Your task to perform on an android device: Open CNN.com Image 0: 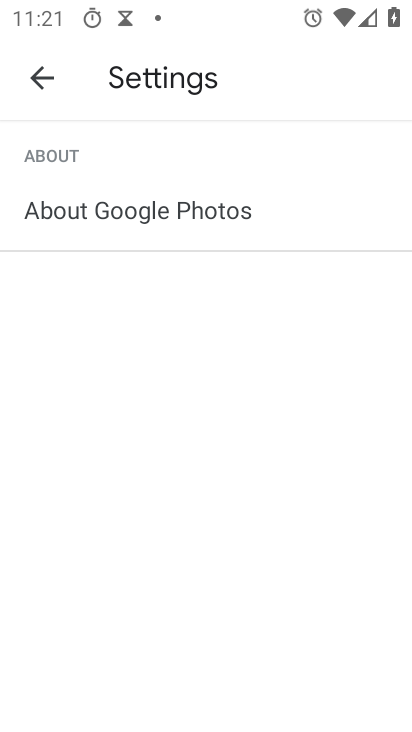
Step 0: click (34, 69)
Your task to perform on an android device: Open CNN.com Image 1: 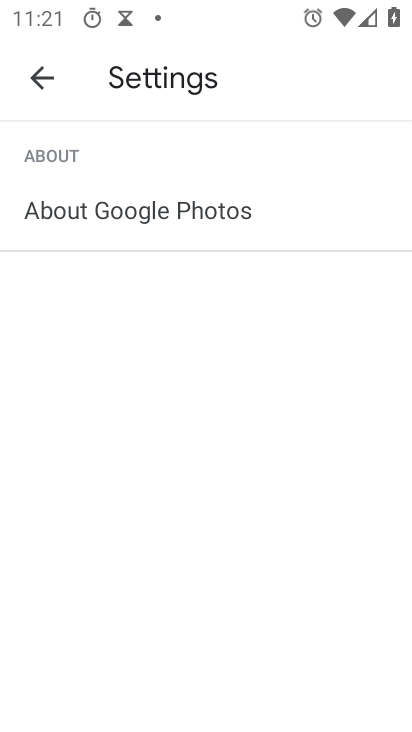
Step 1: click (34, 69)
Your task to perform on an android device: Open CNN.com Image 2: 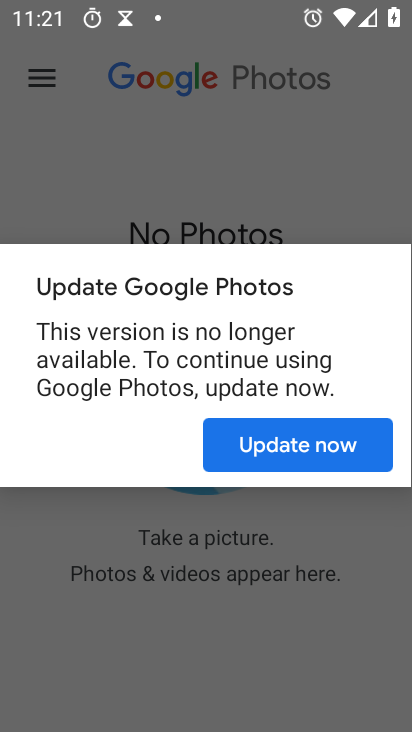
Step 2: press back button
Your task to perform on an android device: Open CNN.com Image 3: 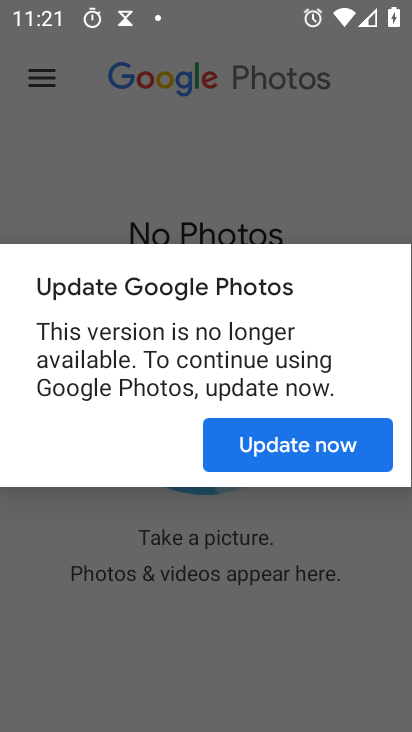
Step 3: press back button
Your task to perform on an android device: Open CNN.com Image 4: 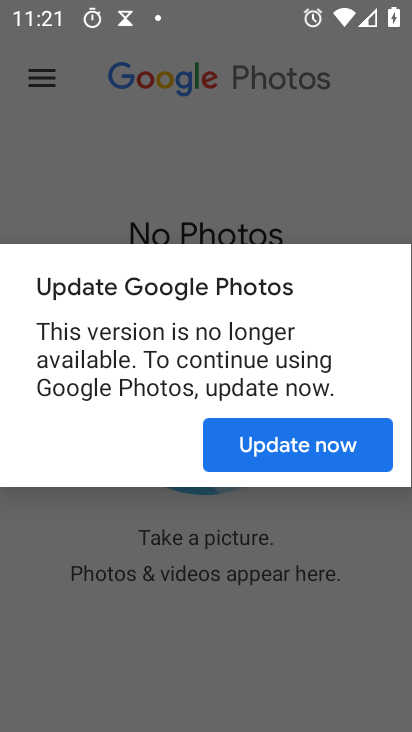
Step 4: press back button
Your task to perform on an android device: Open CNN.com Image 5: 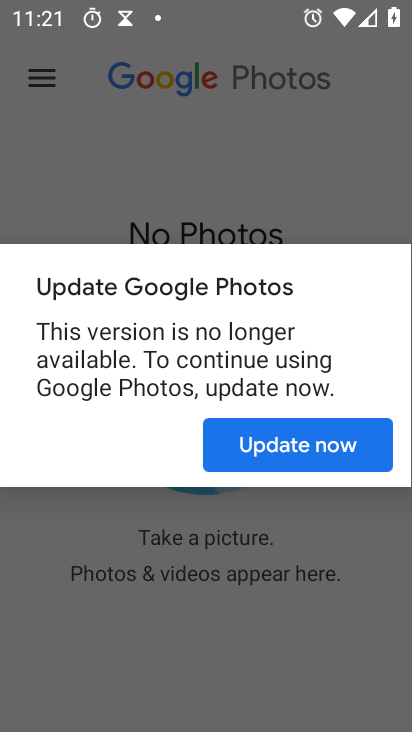
Step 5: press back button
Your task to perform on an android device: Open CNN.com Image 6: 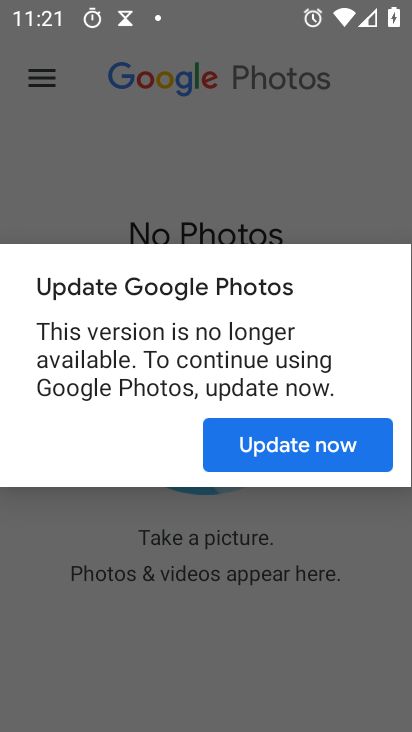
Step 6: click (321, 202)
Your task to perform on an android device: Open CNN.com Image 7: 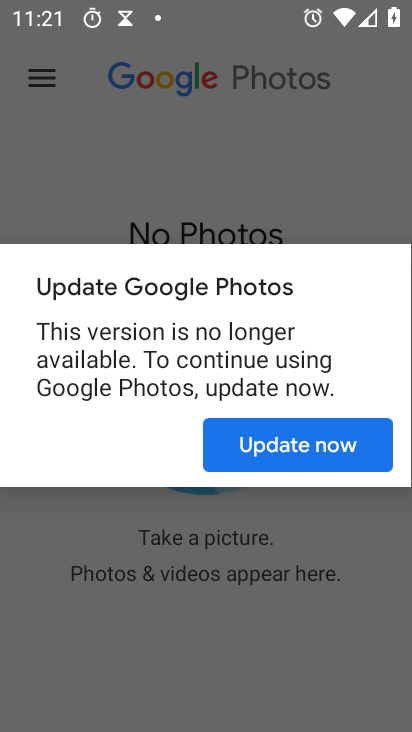
Step 7: press home button
Your task to perform on an android device: Open CNN.com Image 8: 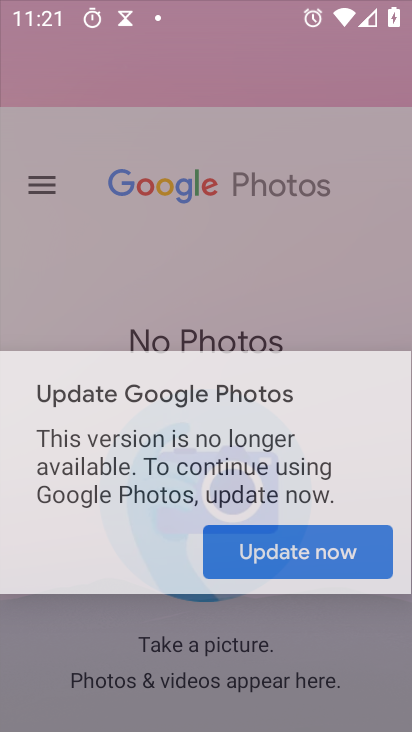
Step 8: click (218, 185)
Your task to perform on an android device: Open CNN.com Image 9: 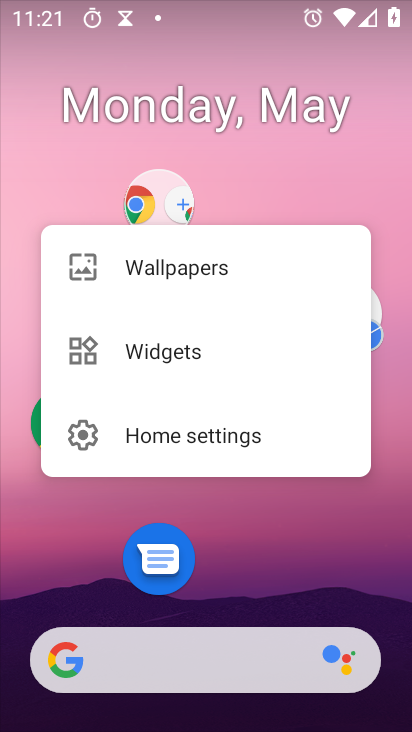
Step 9: click (246, 178)
Your task to perform on an android device: Open CNN.com Image 10: 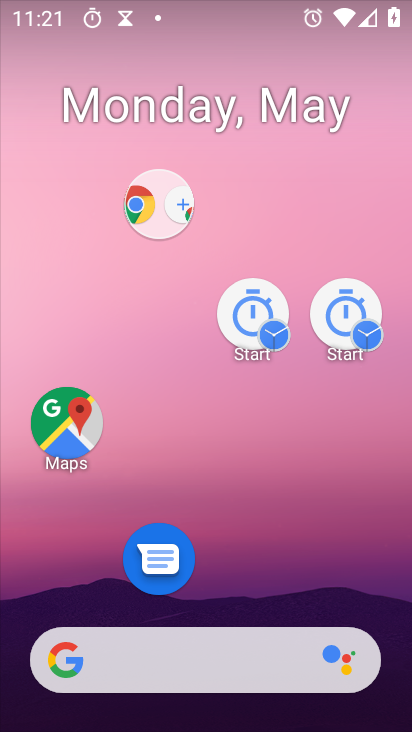
Step 10: drag from (316, 687) to (276, 207)
Your task to perform on an android device: Open CNN.com Image 11: 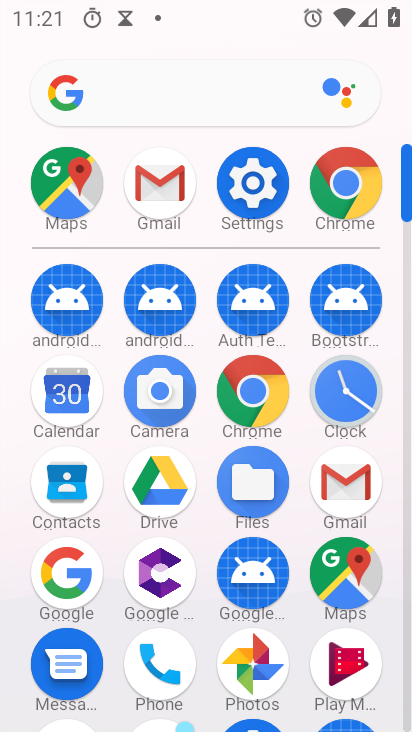
Step 11: drag from (259, 616) to (180, 77)
Your task to perform on an android device: Open CNN.com Image 12: 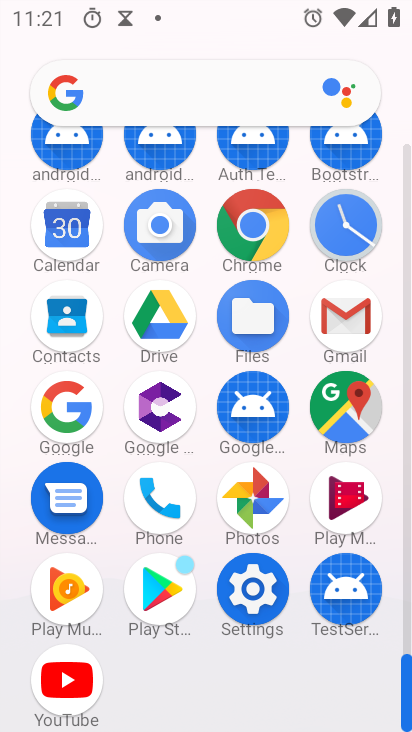
Step 12: click (218, 77)
Your task to perform on an android device: Open CNN.com Image 13: 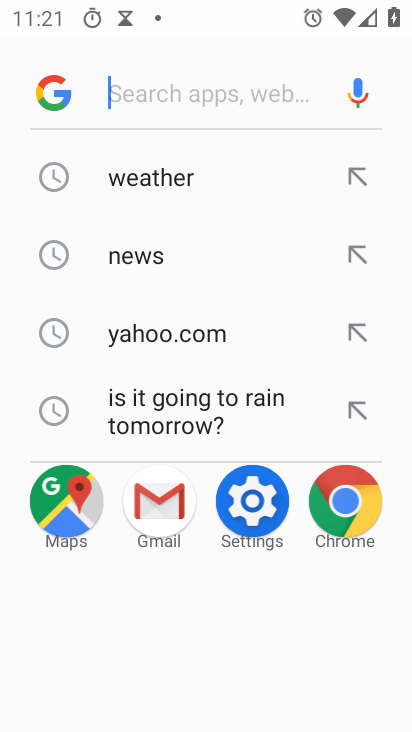
Step 13: click (252, 191)
Your task to perform on an android device: Open CNN.com Image 14: 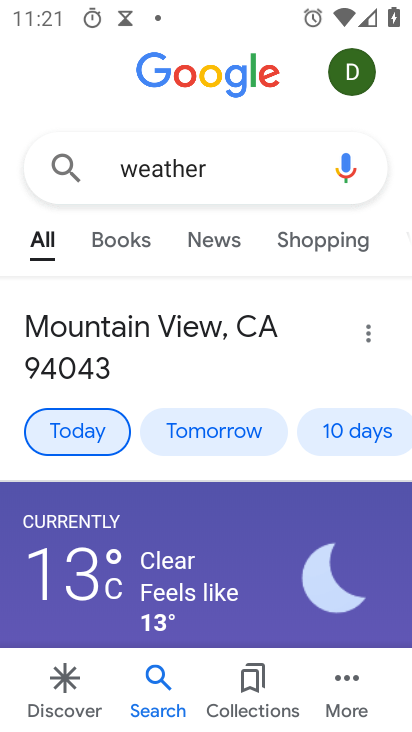
Step 14: press back button
Your task to perform on an android device: Open CNN.com Image 15: 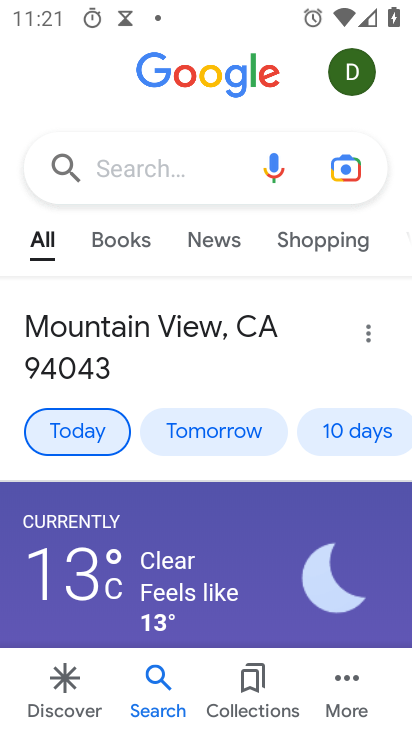
Step 15: press back button
Your task to perform on an android device: Open CNN.com Image 16: 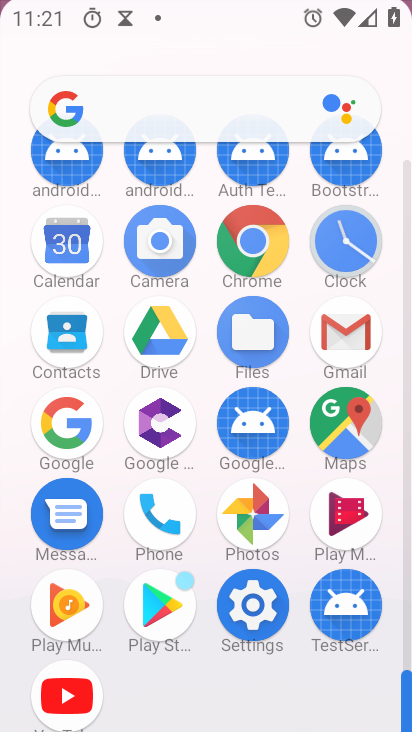
Step 16: press back button
Your task to perform on an android device: Open CNN.com Image 17: 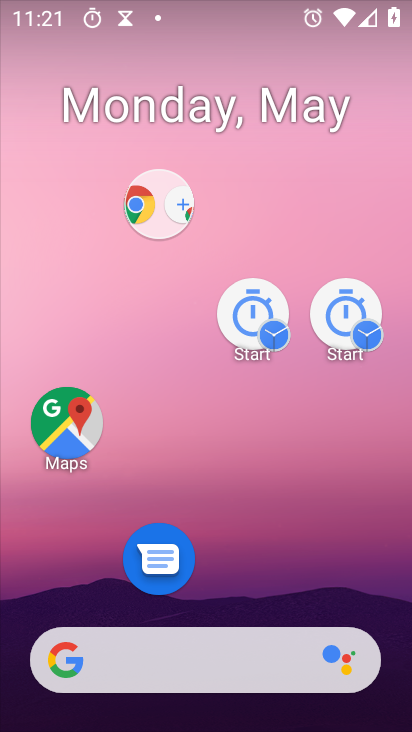
Step 17: drag from (234, 552) to (136, 11)
Your task to perform on an android device: Open CNN.com Image 18: 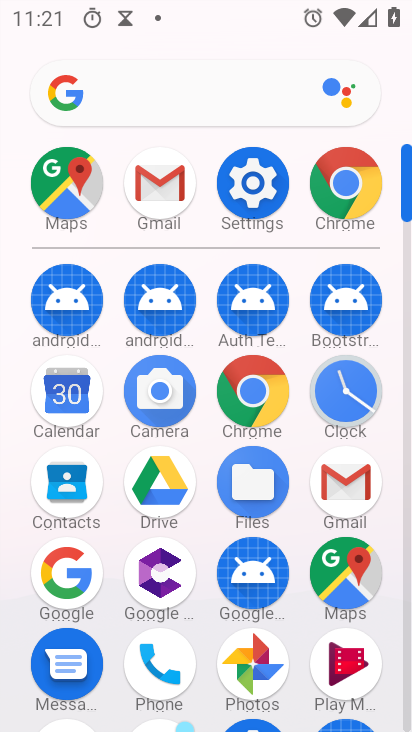
Step 18: click (342, 188)
Your task to perform on an android device: Open CNN.com Image 19: 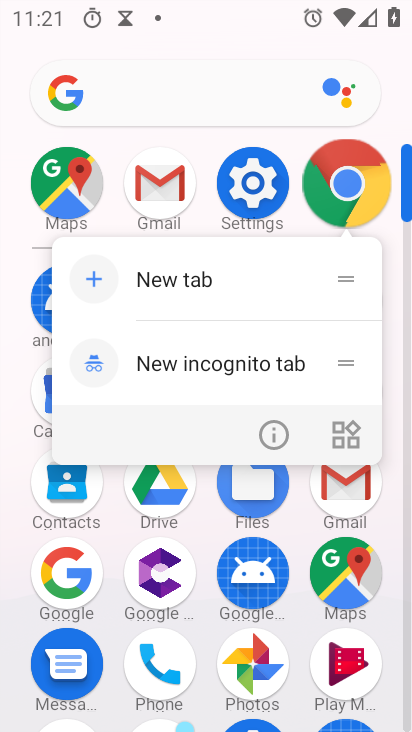
Step 19: click (351, 187)
Your task to perform on an android device: Open CNN.com Image 20: 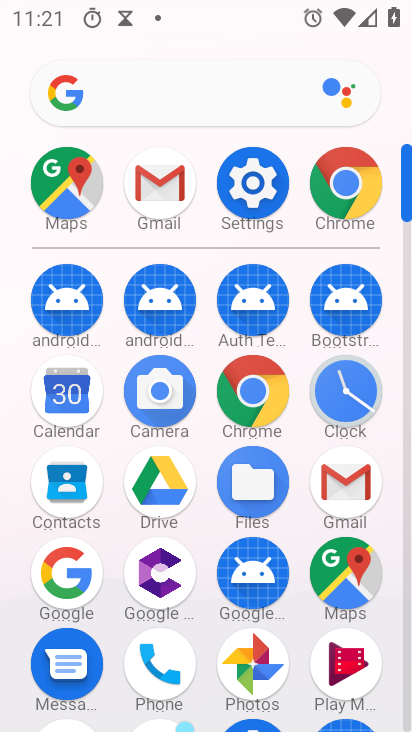
Step 20: click (353, 187)
Your task to perform on an android device: Open CNN.com Image 21: 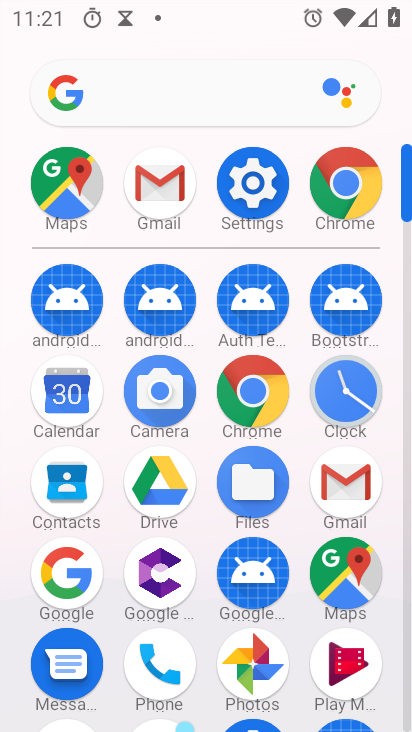
Step 21: click (354, 187)
Your task to perform on an android device: Open CNN.com Image 22: 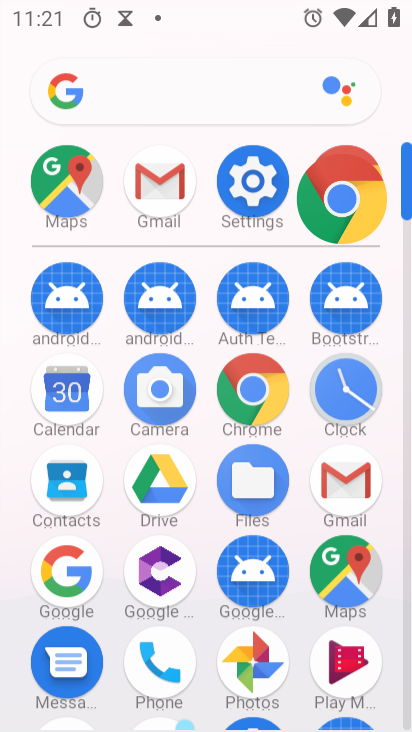
Step 22: click (354, 187)
Your task to perform on an android device: Open CNN.com Image 23: 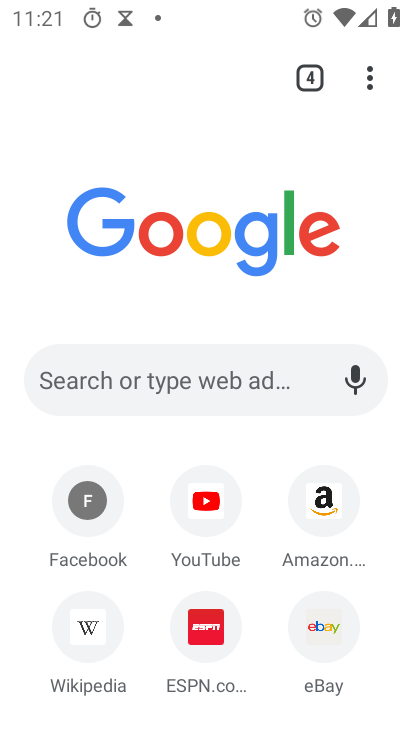
Step 23: click (356, 184)
Your task to perform on an android device: Open CNN.com Image 24: 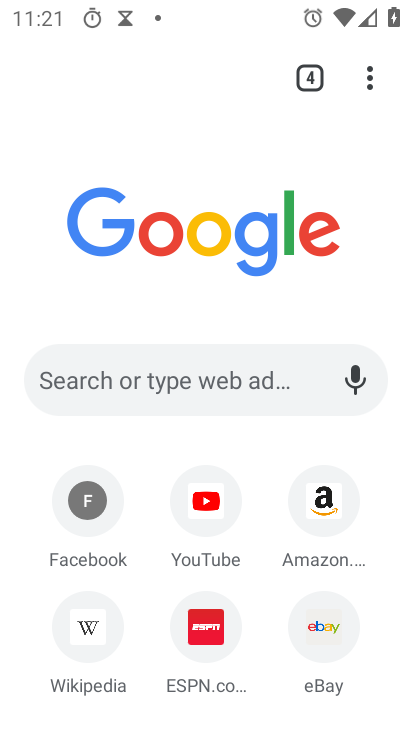
Step 24: click (72, 378)
Your task to perform on an android device: Open CNN.com Image 25: 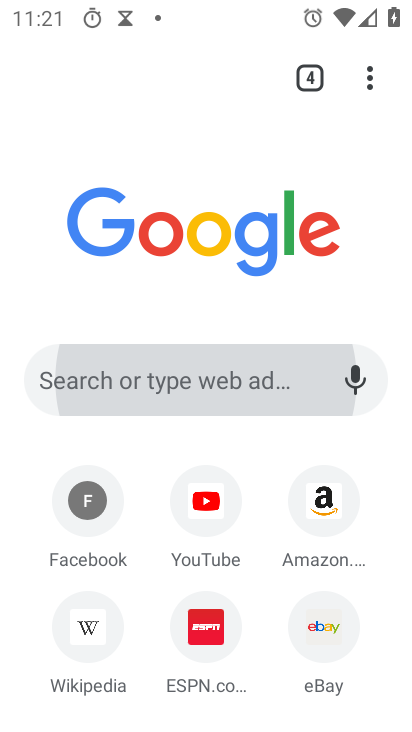
Step 25: click (67, 374)
Your task to perform on an android device: Open CNN.com Image 26: 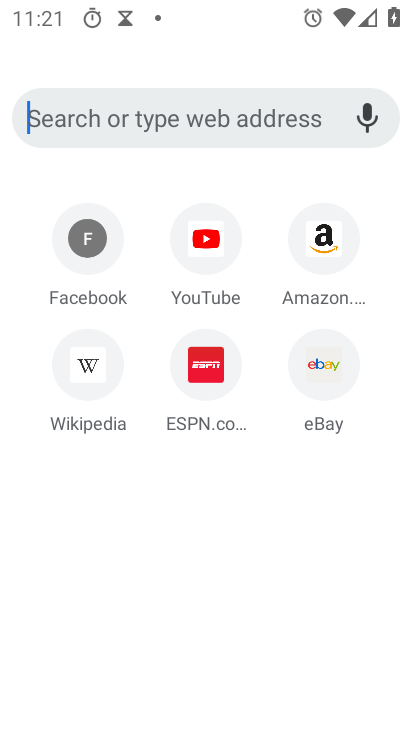
Step 26: click (65, 372)
Your task to perform on an android device: Open CNN.com Image 27: 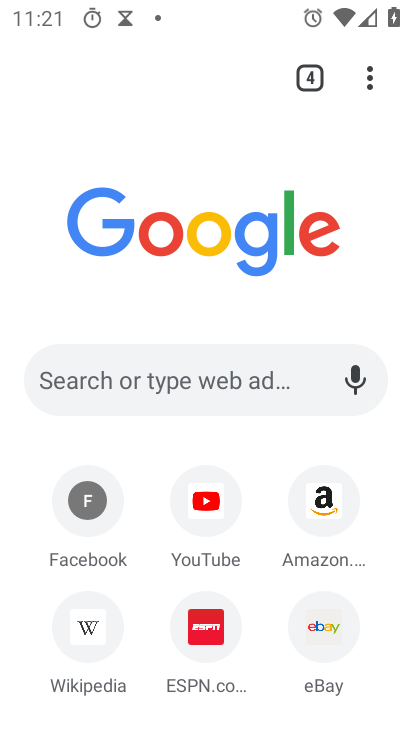
Step 27: click (60, 385)
Your task to perform on an android device: Open CNN.com Image 28: 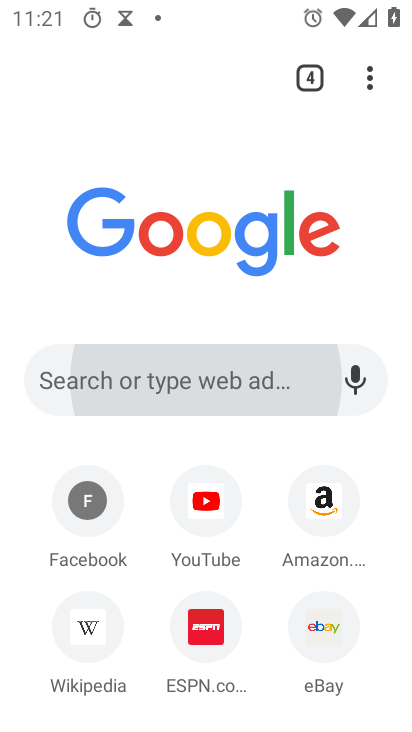
Step 28: click (59, 385)
Your task to perform on an android device: Open CNN.com Image 29: 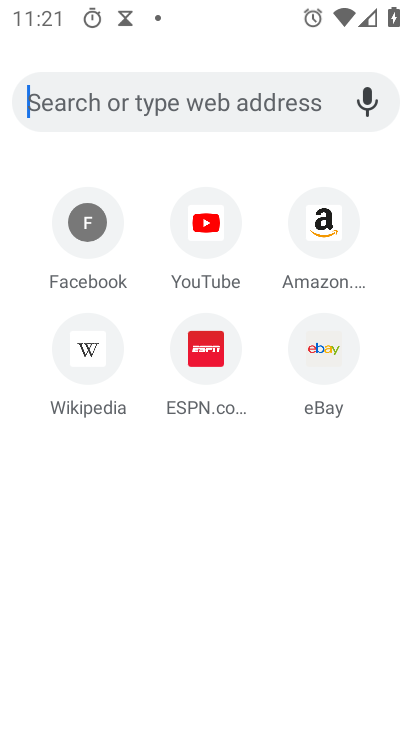
Step 29: click (58, 385)
Your task to perform on an android device: Open CNN.com Image 30: 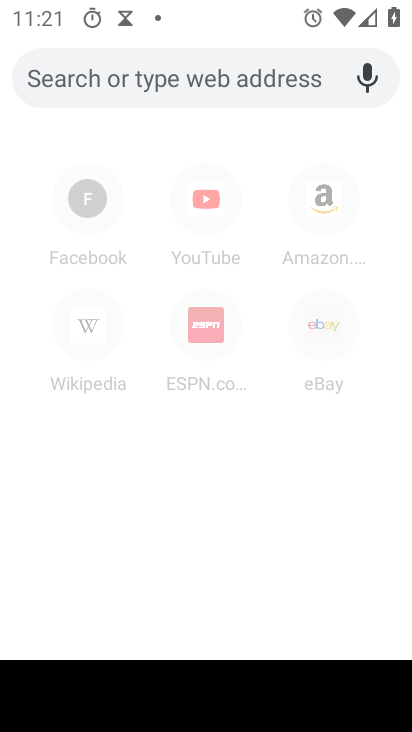
Step 30: click (52, 381)
Your task to perform on an android device: Open CNN.com Image 31: 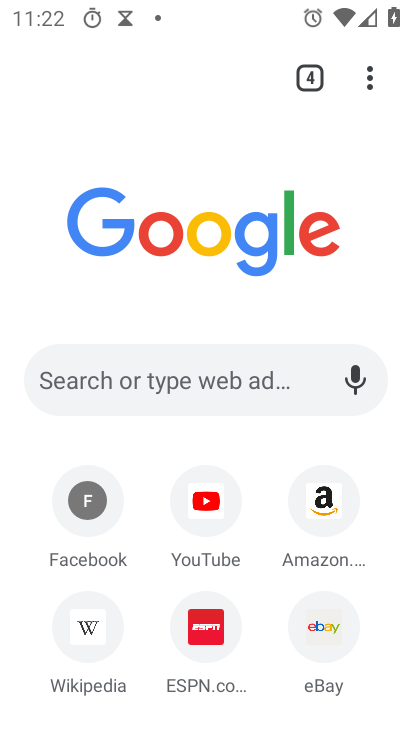
Step 31: click (45, 374)
Your task to perform on an android device: Open CNN.com Image 32: 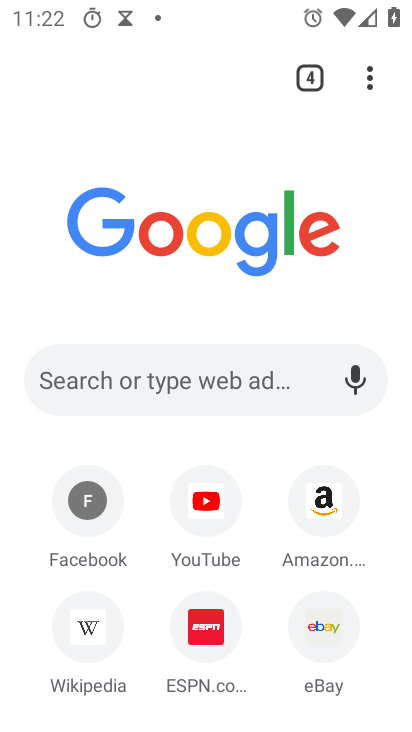
Step 32: click (49, 375)
Your task to perform on an android device: Open CNN.com Image 33: 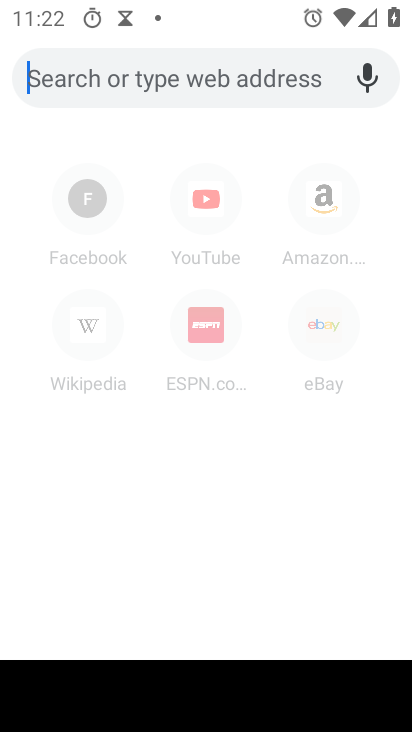
Step 33: type "cnn.com"
Your task to perform on an android device: Open CNN.com Image 34: 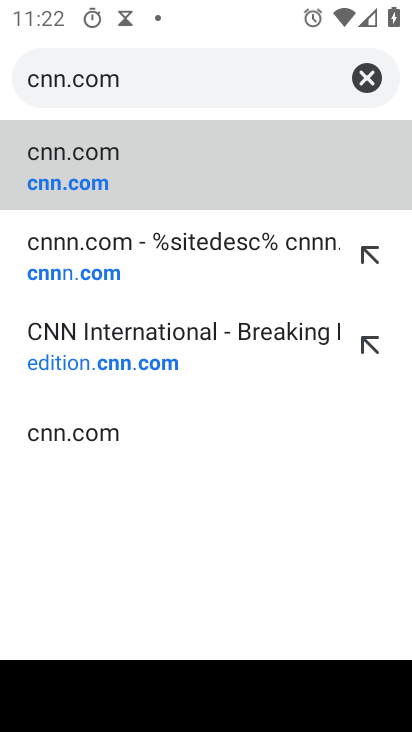
Step 34: click (65, 181)
Your task to perform on an android device: Open CNN.com Image 35: 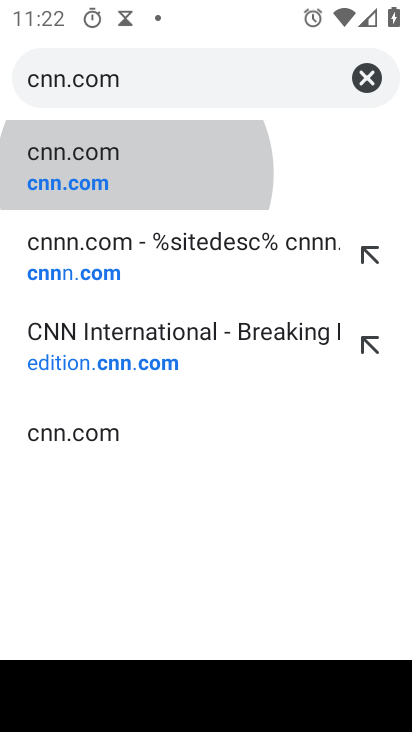
Step 35: click (62, 178)
Your task to perform on an android device: Open CNN.com Image 36: 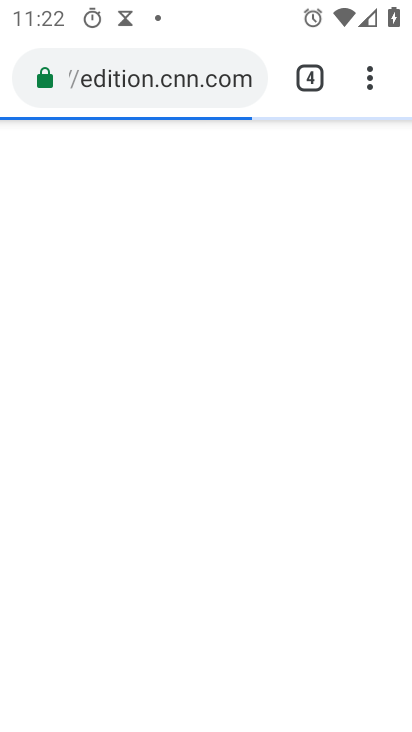
Step 36: task complete